Your task to perform on an android device: Go to internet settings Image 0: 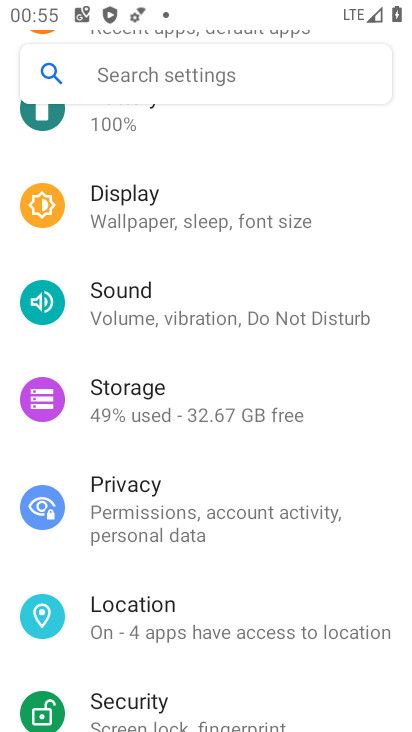
Step 0: drag from (174, 155) to (188, 547)
Your task to perform on an android device: Go to internet settings Image 1: 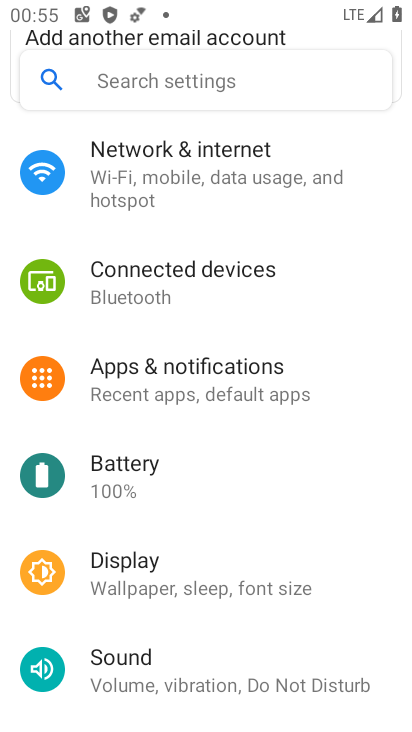
Step 1: click (172, 185)
Your task to perform on an android device: Go to internet settings Image 2: 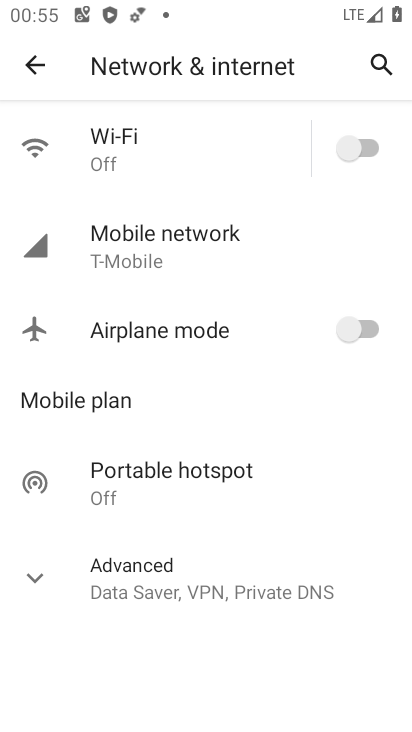
Step 2: click (148, 248)
Your task to perform on an android device: Go to internet settings Image 3: 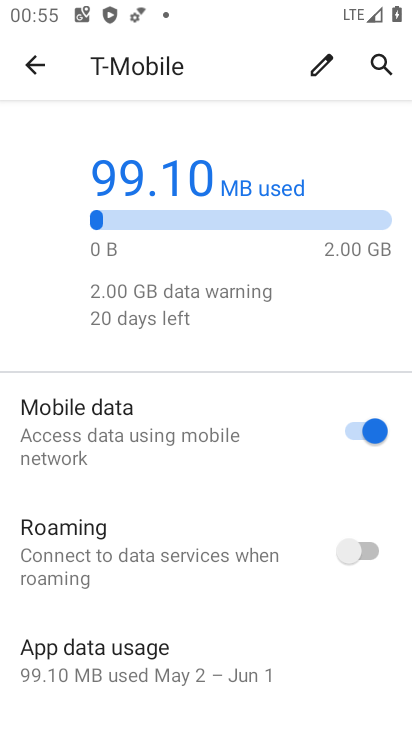
Step 3: task complete